Your task to perform on an android device: Show me recent news Image 0: 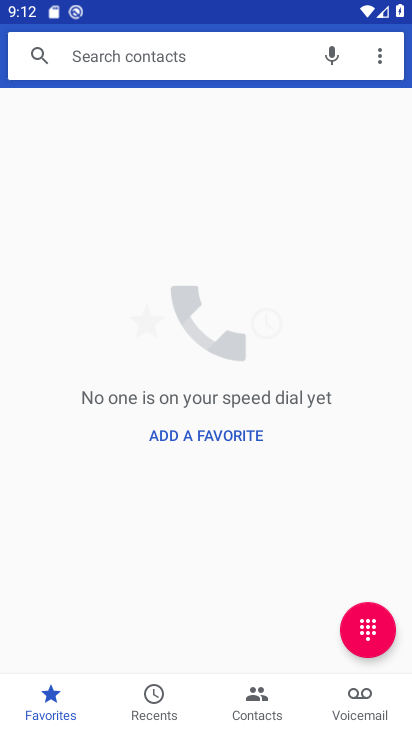
Step 0: press home button
Your task to perform on an android device: Show me recent news Image 1: 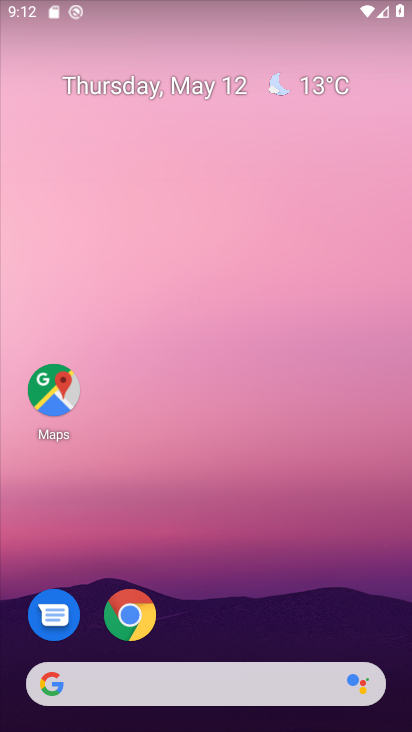
Step 1: task complete